Your task to perform on an android device: visit the assistant section in the google photos Image 0: 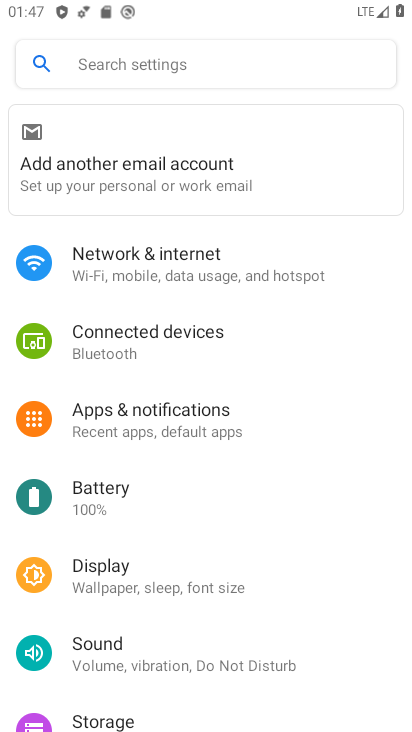
Step 0: press home button
Your task to perform on an android device: visit the assistant section in the google photos Image 1: 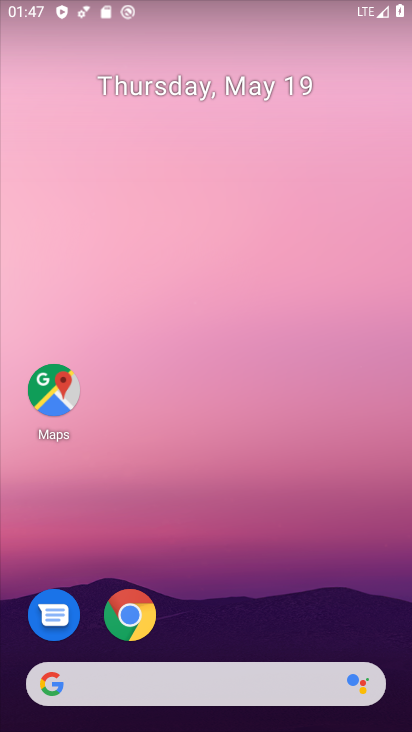
Step 1: drag from (247, 534) to (230, 249)
Your task to perform on an android device: visit the assistant section in the google photos Image 2: 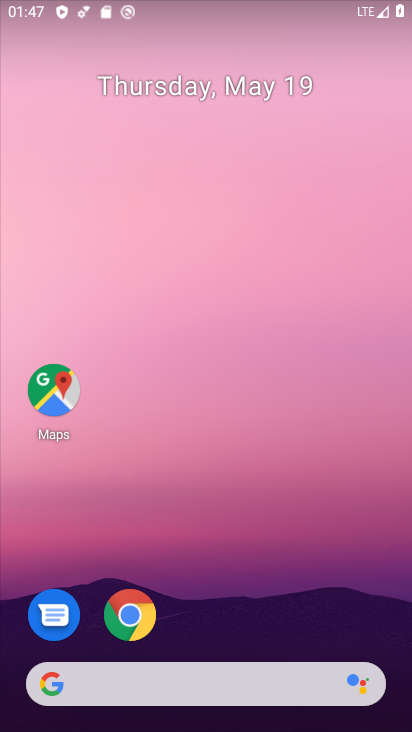
Step 2: drag from (301, 636) to (247, 278)
Your task to perform on an android device: visit the assistant section in the google photos Image 3: 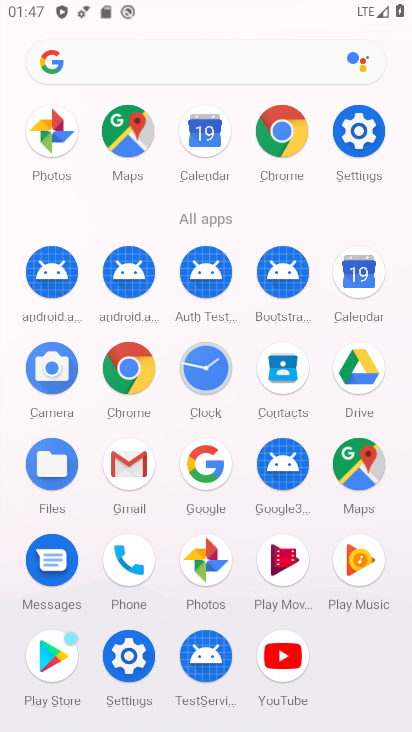
Step 3: click (208, 548)
Your task to perform on an android device: visit the assistant section in the google photos Image 4: 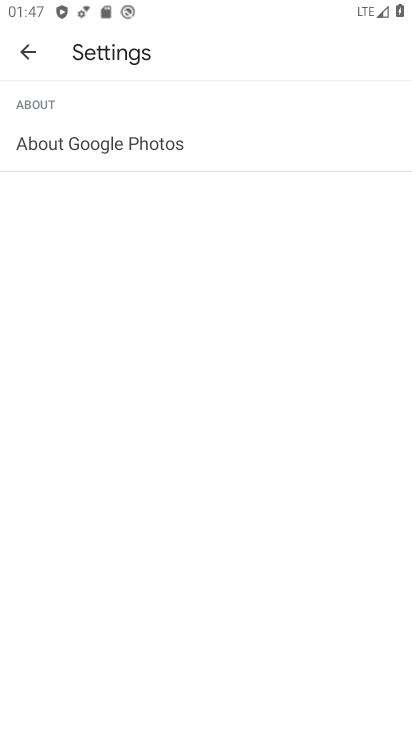
Step 4: click (38, 43)
Your task to perform on an android device: visit the assistant section in the google photos Image 5: 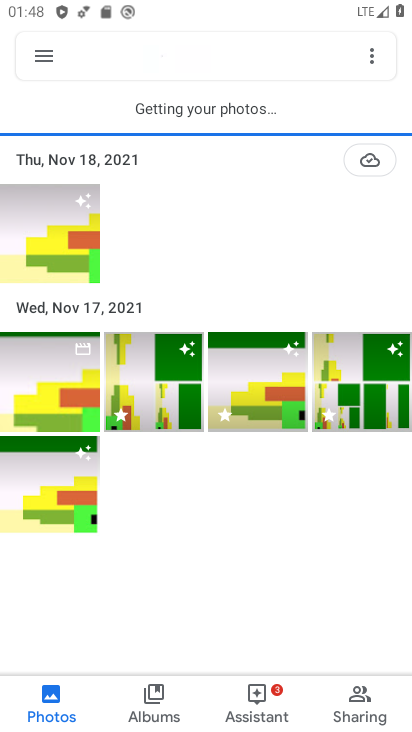
Step 5: click (246, 701)
Your task to perform on an android device: visit the assistant section in the google photos Image 6: 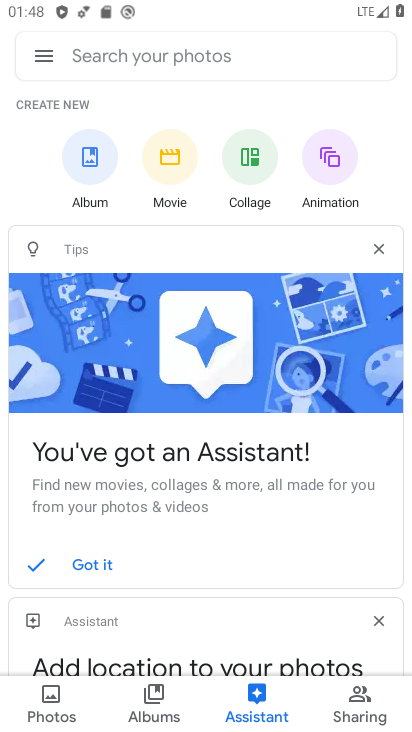
Step 6: task complete